Your task to perform on an android device: turn off notifications settings in the gmail app Image 0: 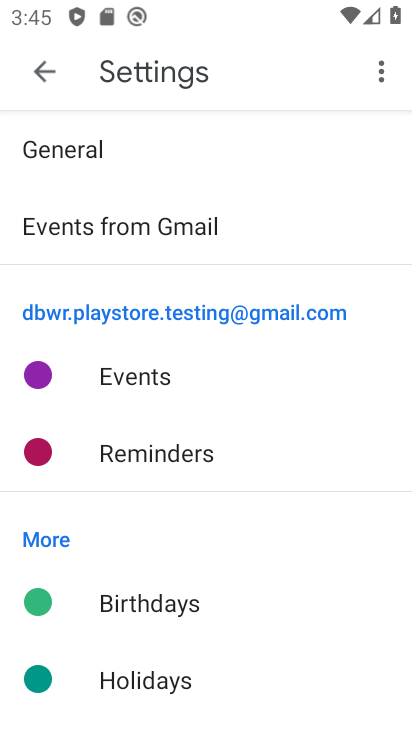
Step 0: press home button
Your task to perform on an android device: turn off notifications settings in the gmail app Image 1: 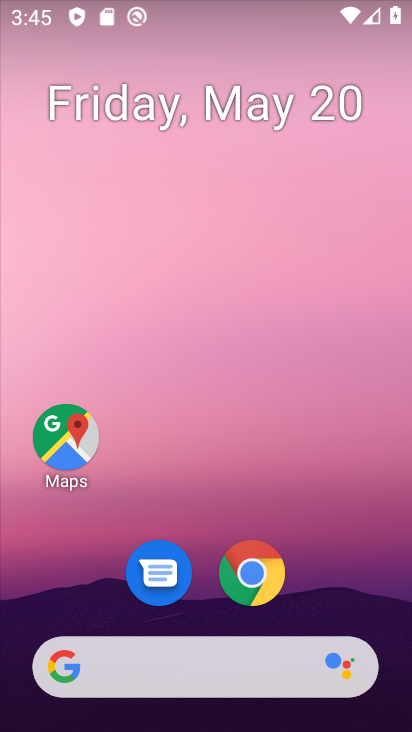
Step 1: drag from (362, 604) to (342, 112)
Your task to perform on an android device: turn off notifications settings in the gmail app Image 2: 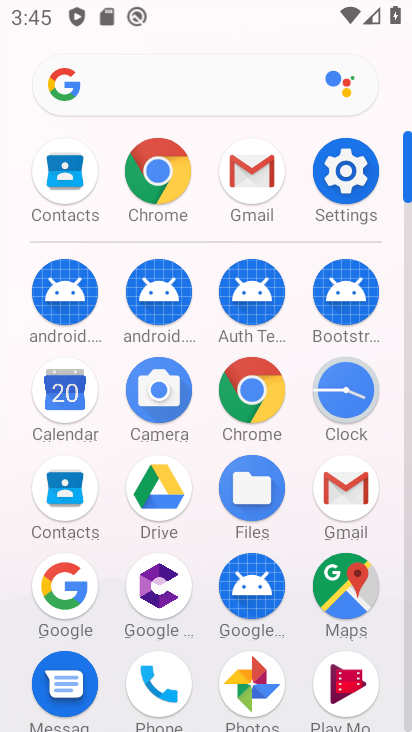
Step 2: click (348, 494)
Your task to perform on an android device: turn off notifications settings in the gmail app Image 3: 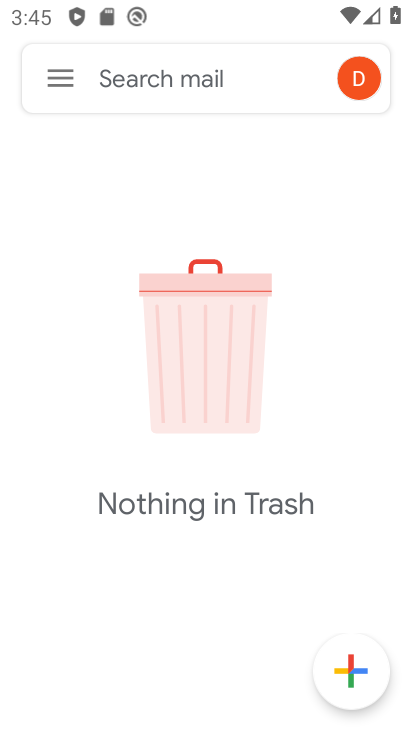
Step 3: click (51, 85)
Your task to perform on an android device: turn off notifications settings in the gmail app Image 4: 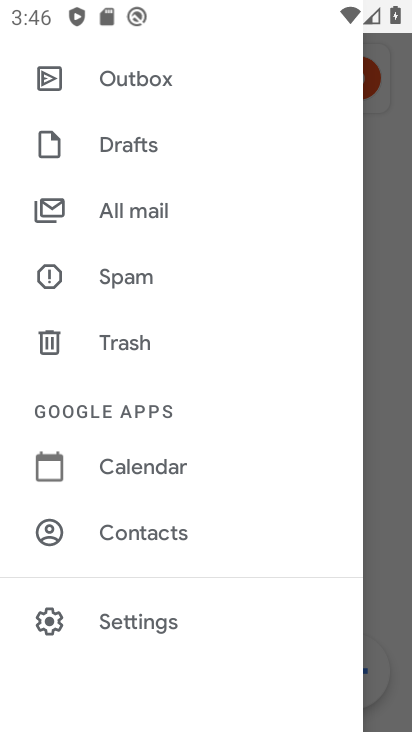
Step 4: click (161, 626)
Your task to perform on an android device: turn off notifications settings in the gmail app Image 5: 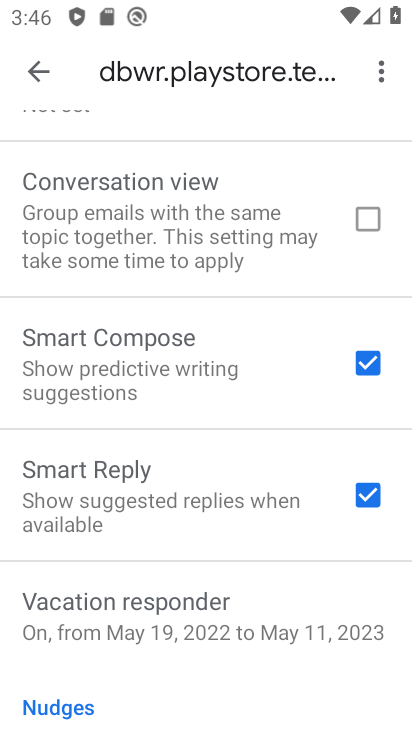
Step 5: drag from (163, 623) to (270, 261)
Your task to perform on an android device: turn off notifications settings in the gmail app Image 6: 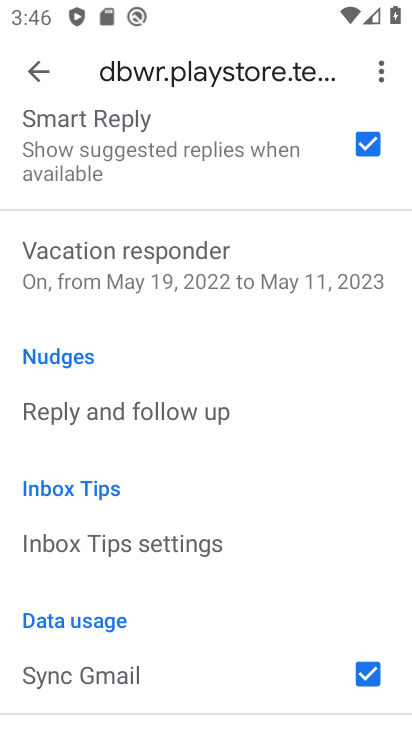
Step 6: drag from (271, 190) to (267, 630)
Your task to perform on an android device: turn off notifications settings in the gmail app Image 7: 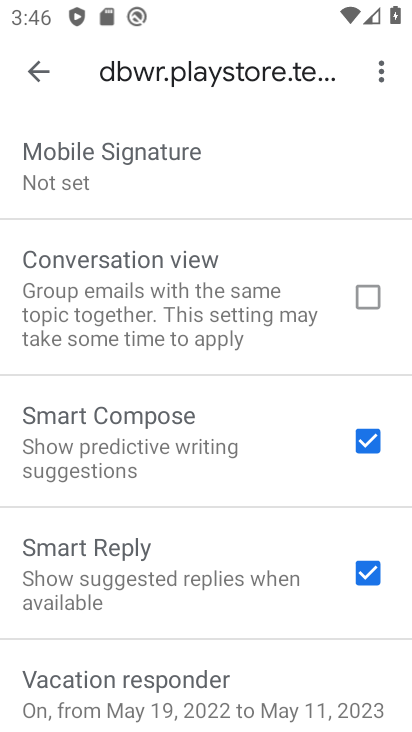
Step 7: drag from (277, 254) to (271, 650)
Your task to perform on an android device: turn off notifications settings in the gmail app Image 8: 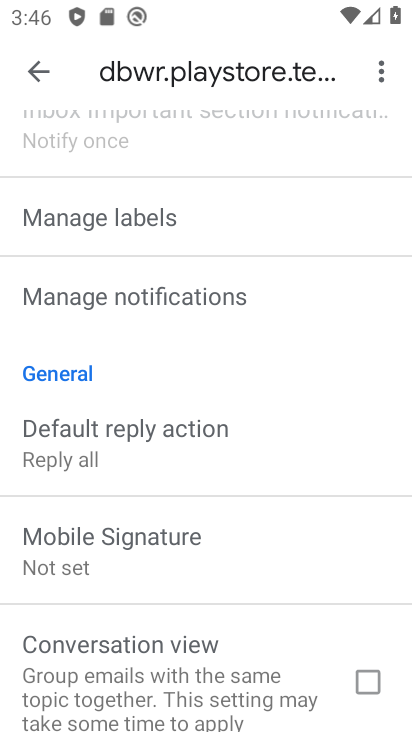
Step 8: drag from (189, 198) to (201, 621)
Your task to perform on an android device: turn off notifications settings in the gmail app Image 9: 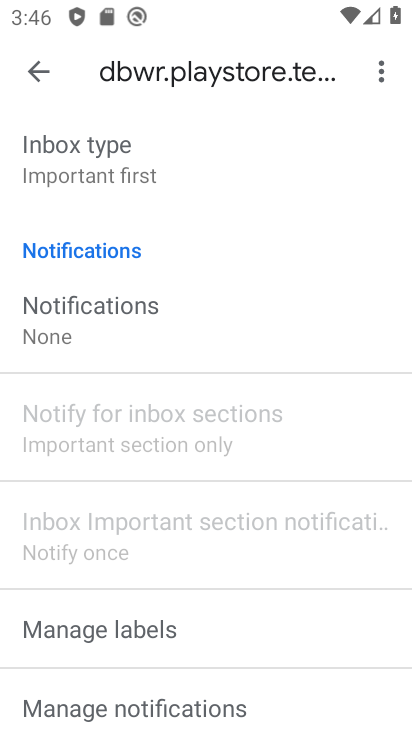
Step 9: click (69, 307)
Your task to perform on an android device: turn off notifications settings in the gmail app Image 10: 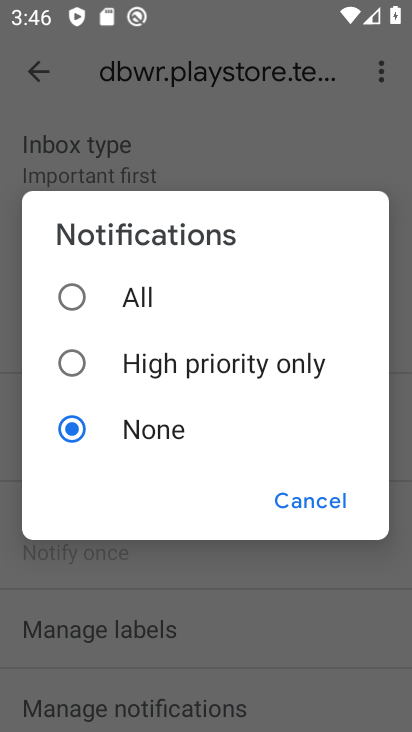
Step 10: task complete